Your task to perform on an android device: check out phone information Image 0: 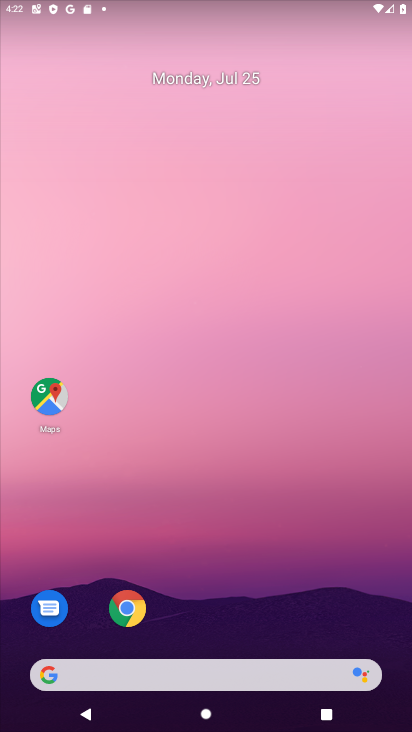
Step 0: press home button
Your task to perform on an android device: check out phone information Image 1: 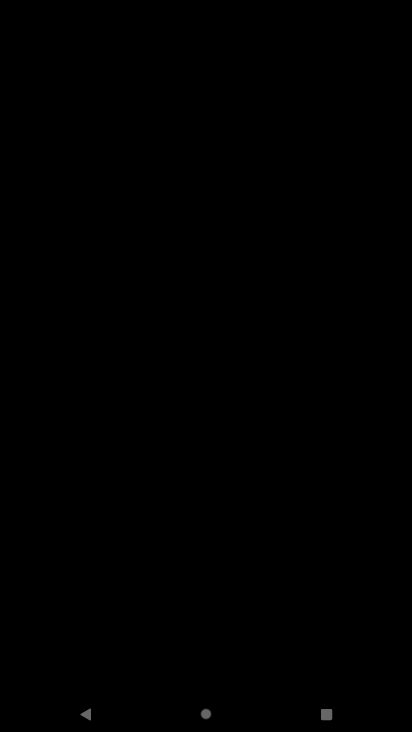
Step 1: drag from (223, 13) to (126, 21)
Your task to perform on an android device: check out phone information Image 2: 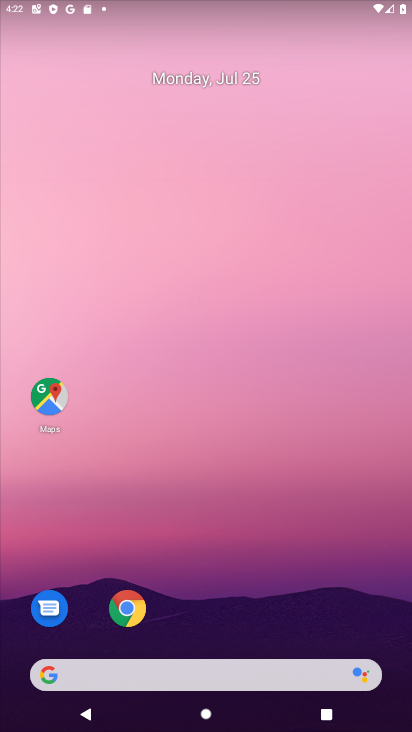
Step 2: drag from (222, 637) to (219, 2)
Your task to perform on an android device: check out phone information Image 3: 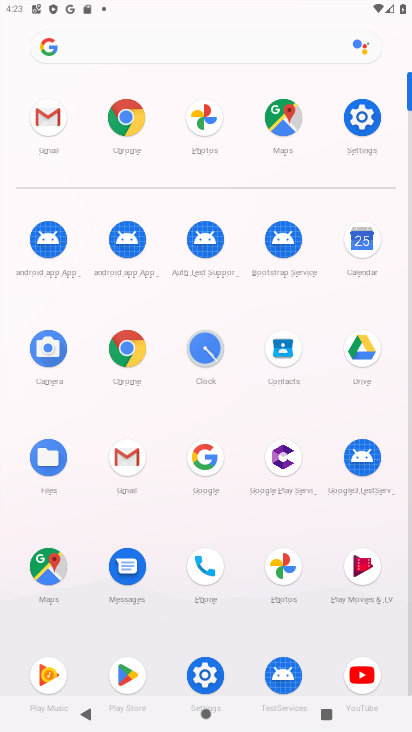
Step 3: click (354, 110)
Your task to perform on an android device: check out phone information Image 4: 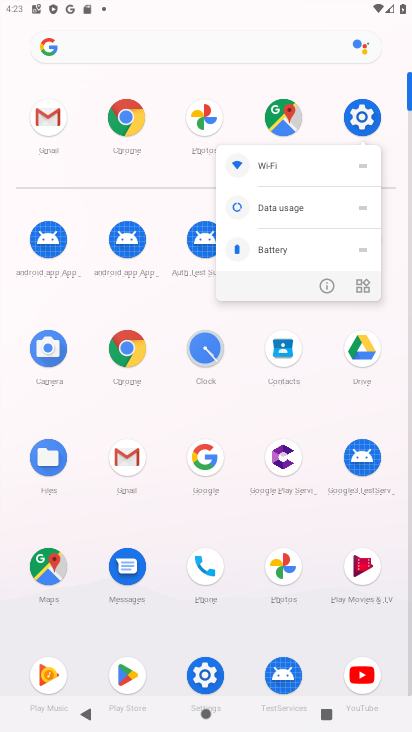
Step 4: click (360, 113)
Your task to perform on an android device: check out phone information Image 5: 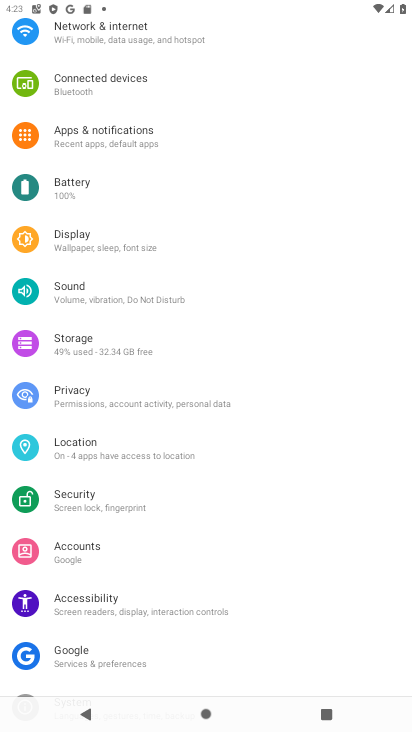
Step 5: drag from (153, 644) to (192, 0)
Your task to perform on an android device: check out phone information Image 6: 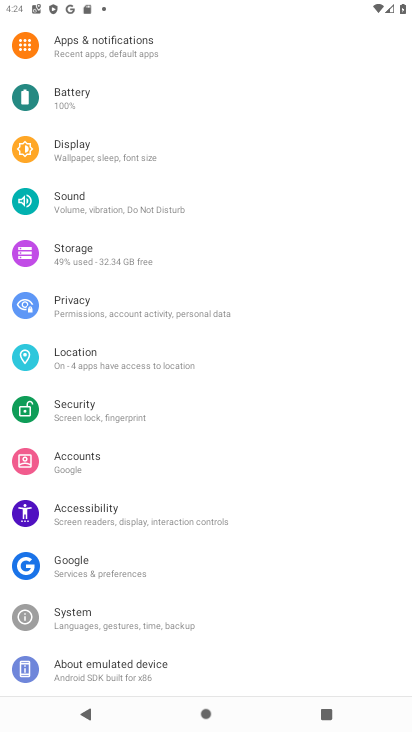
Step 6: click (163, 662)
Your task to perform on an android device: check out phone information Image 7: 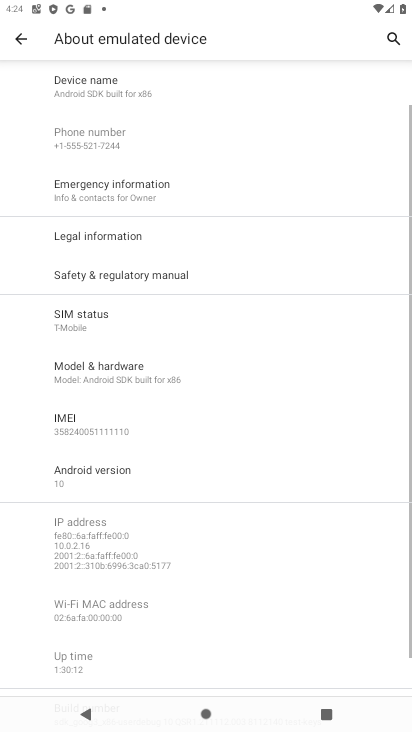
Step 7: task complete